Your task to perform on an android device: Open sound settings Image 0: 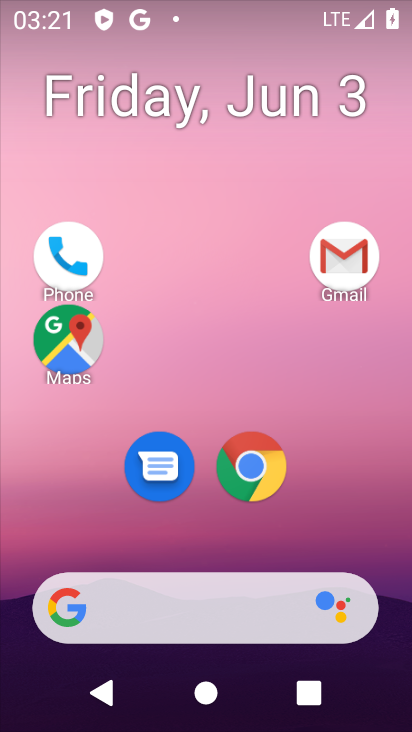
Step 0: click (78, 347)
Your task to perform on an android device: Open sound settings Image 1: 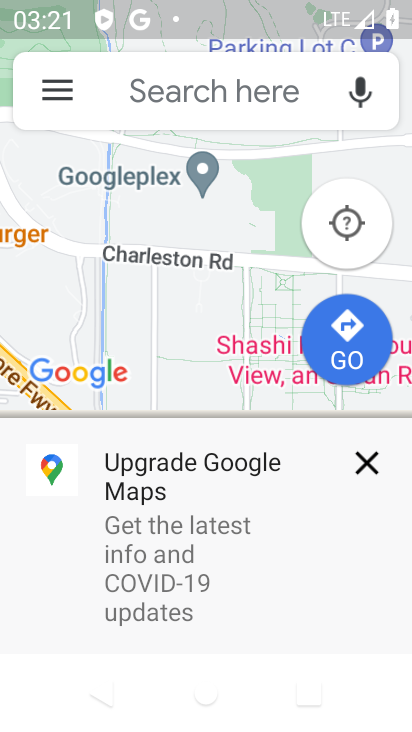
Step 1: press home button
Your task to perform on an android device: Open sound settings Image 2: 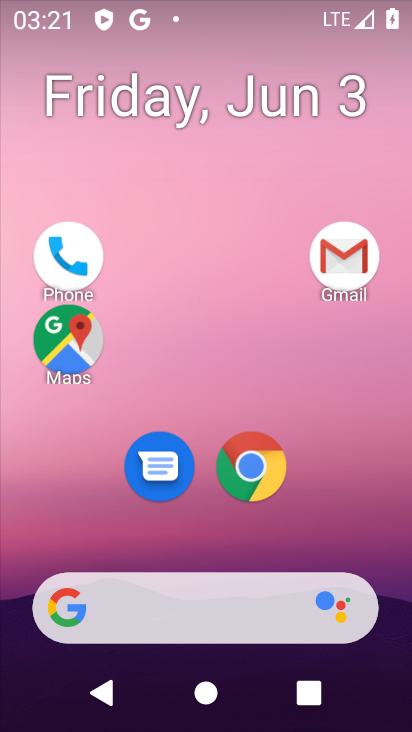
Step 2: drag from (182, 548) to (193, 208)
Your task to perform on an android device: Open sound settings Image 3: 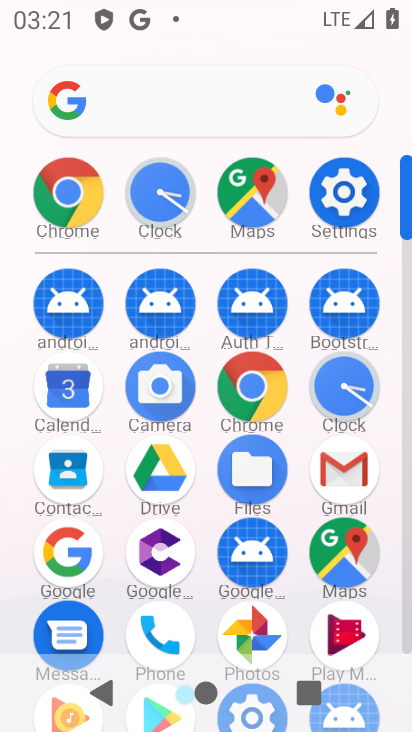
Step 3: click (351, 193)
Your task to perform on an android device: Open sound settings Image 4: 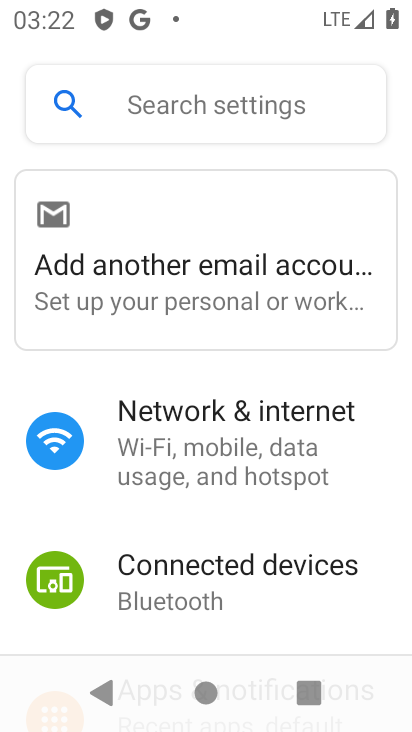
Step 4: drag from (248, 587) to (202, 341)
Your task to perform on an android device: Open sound settings Image 5: 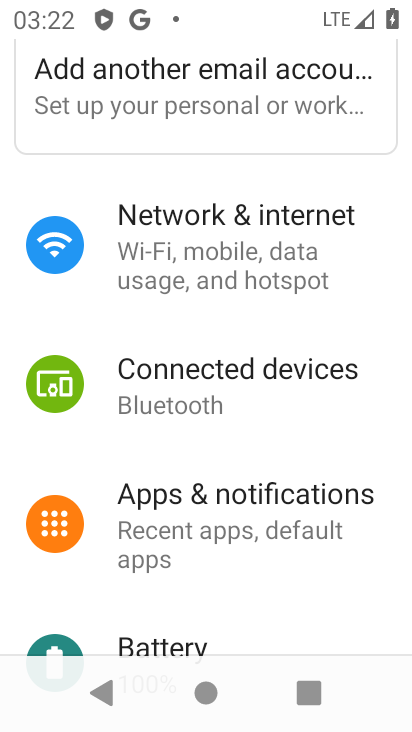
Step 5: drag from (218, 609) to (213, 308)
Your task to perform on an android device: Open sound settings Image 6: 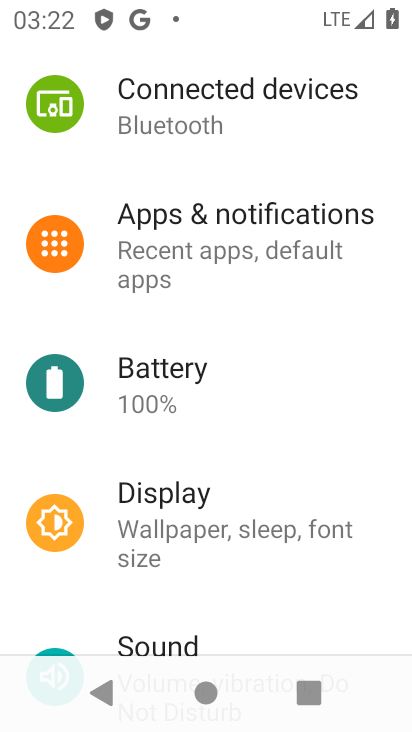
Step 6: drag from (174, 575) to (190, 320)
Your task to perform on an android device: Open sound settings Image 7: 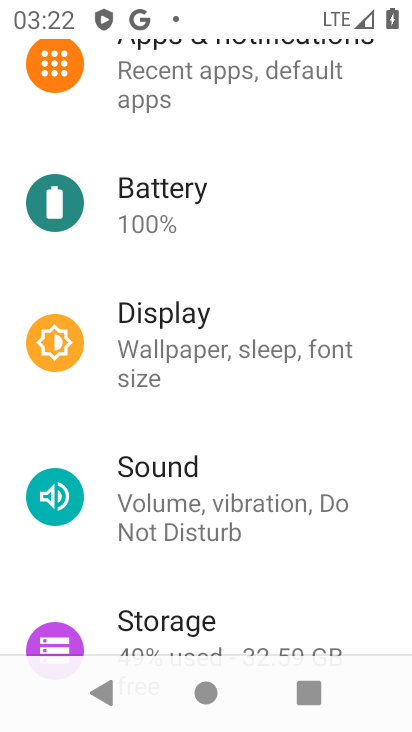
Step 7: click (164, 502)
Your task to perform on an android device: Open sound settings Image 8: 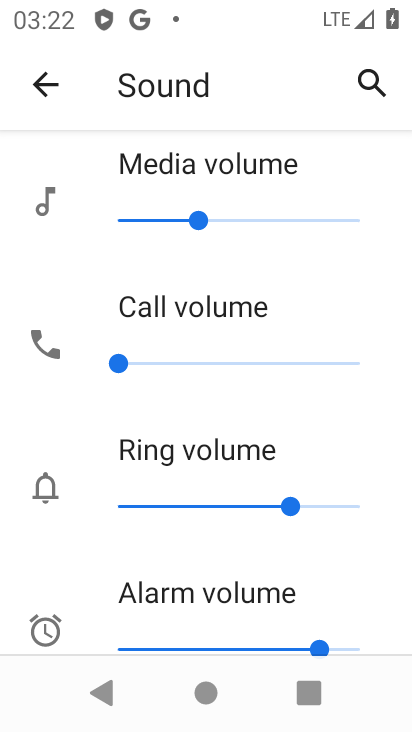
Step 8: task complete